Your task to perform on an android device: move an email to a new category in the gmail app Image 0: 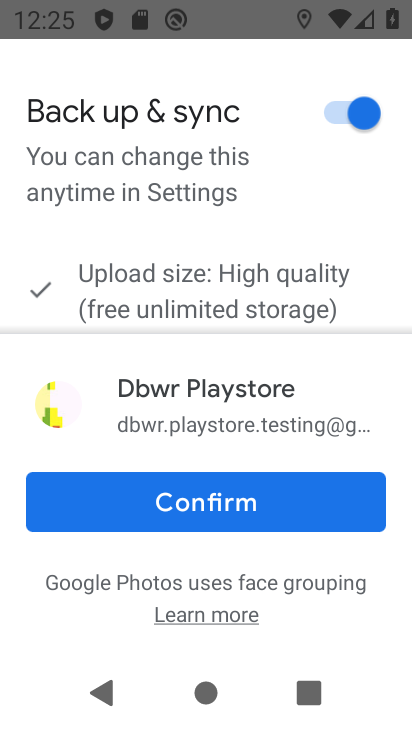
Step 0: press home button
Your task to perform on an android device: move an email to a new category in the gmail app Image 1: 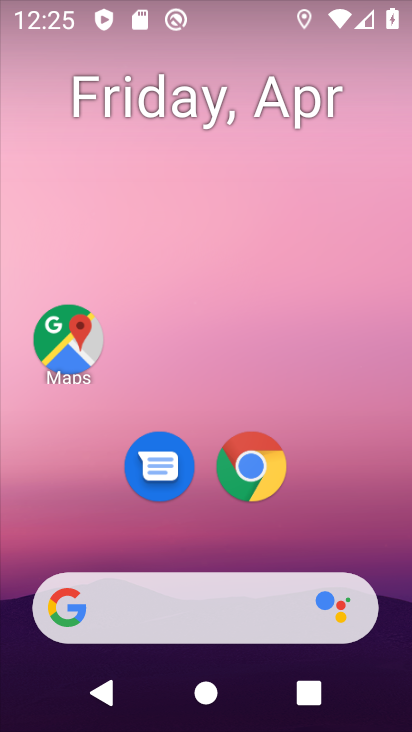
Step 1: drag from (382, 526) to (340, 137)
Your task to perform on an android device: move an email to a new category in the gmail app Image 2: 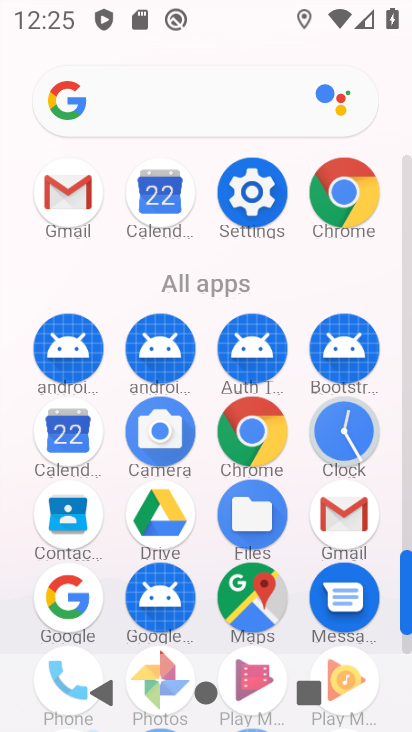
Step 2: click (342, 508)
Your task to perform on an android device: move an email to a new category in the gmail app Image 3: 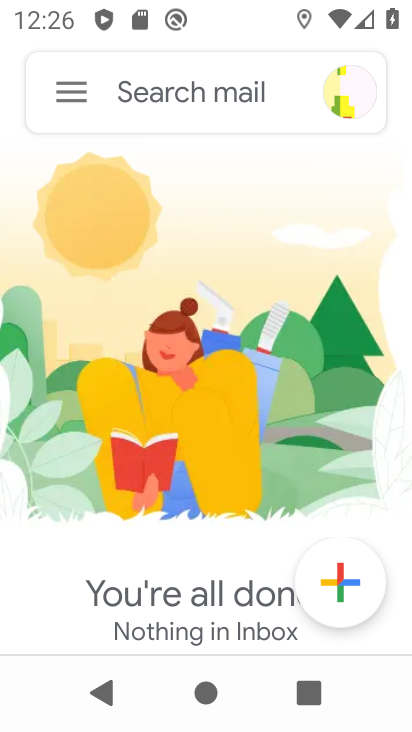
Step 3: click (67, 94)
Your task to perform on an android device: move an email to a new category in the gmail app Image 4: 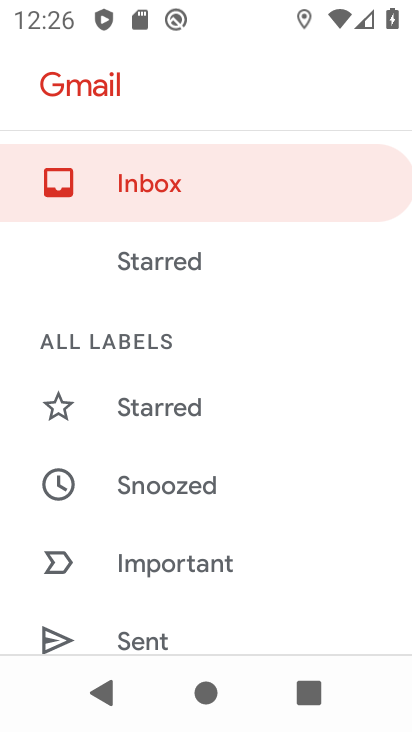
Step 4: drag from (243, 605) to (269, 264)
Your task to perform on an android device: move an email to a new category in the gmail app Image 5: 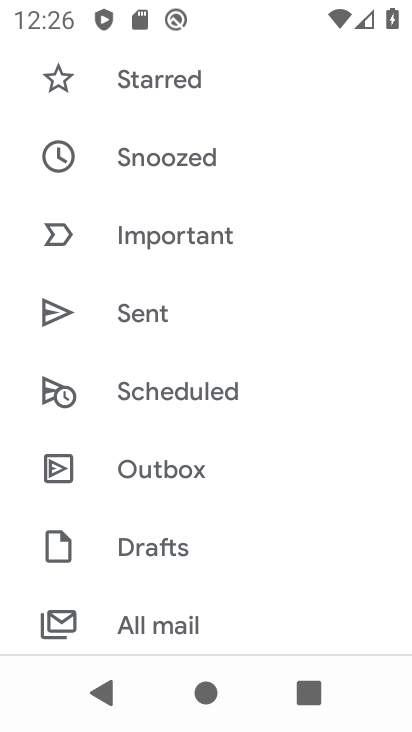
Step 5: click (198, 630)
Your task to perform on an android device: move an email to a new category in the gmail app Image 6: 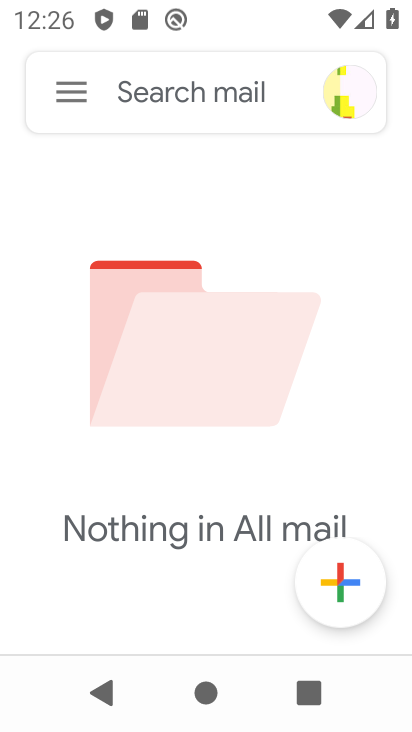
Step 6: task complete